Your task to perform on an android device: refresh tabs in the chrome app Image 0: 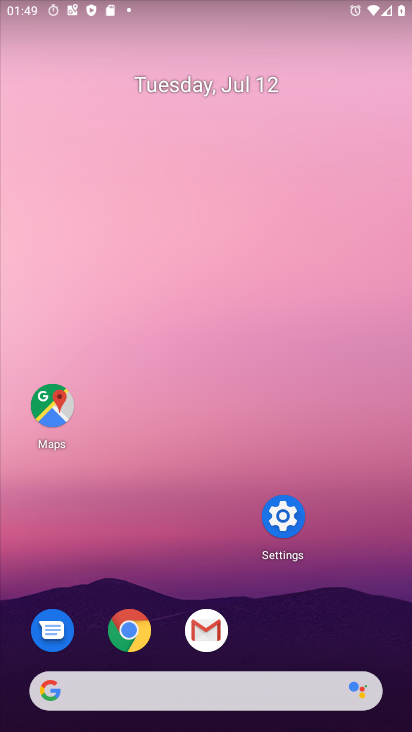
Step 0: click (120, 629)
Your task to perform on an android device: refresh tabs in the chrome app Image 1: 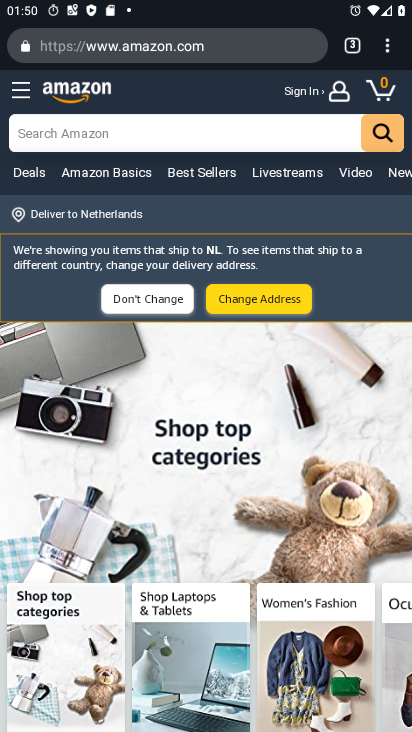
Step 1: click (384, 58)
Your task to perform on an android device: refresh tabs in the chrome app Image 2: 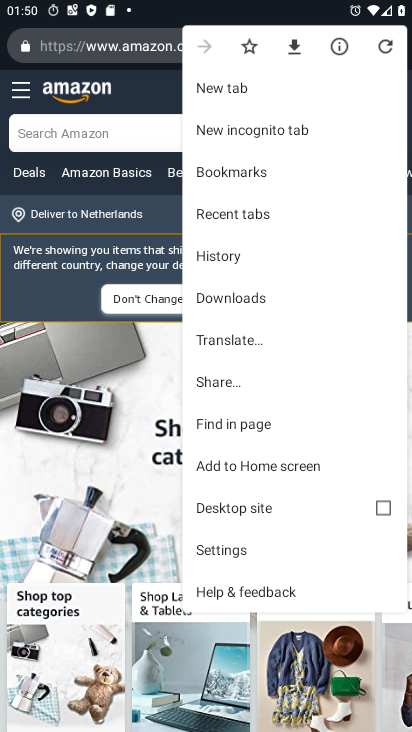
Step 2: click (382, 50)
Your task to perform on an android device: refresh tabs in the chrome app Image 3: 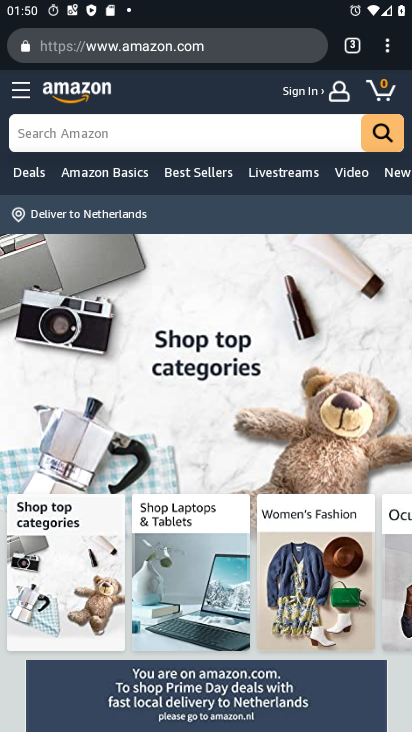
Step 3: task complete